Your task to perform on an android device: Turn on the flashlight Image 0: 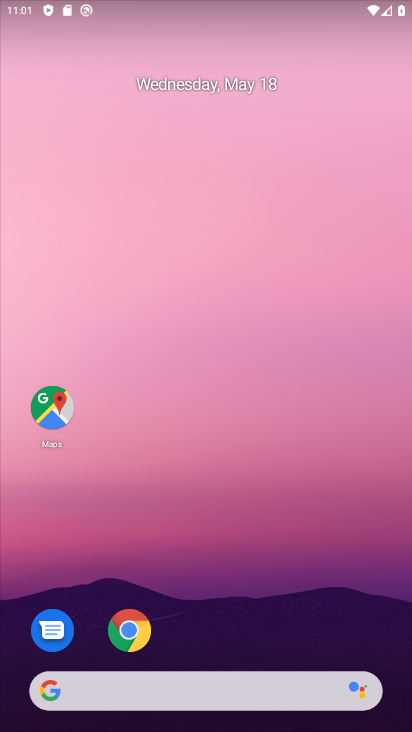
Step 0: click (202, 692)
Your task to perform on an android device: Turn on the flashlight Image 1: 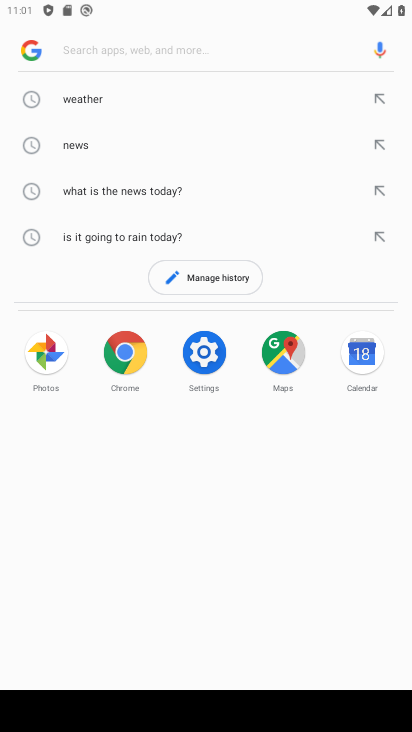
Step 1: press home button
Your task to perform on an android device: Turn on the flashlight Image 2: 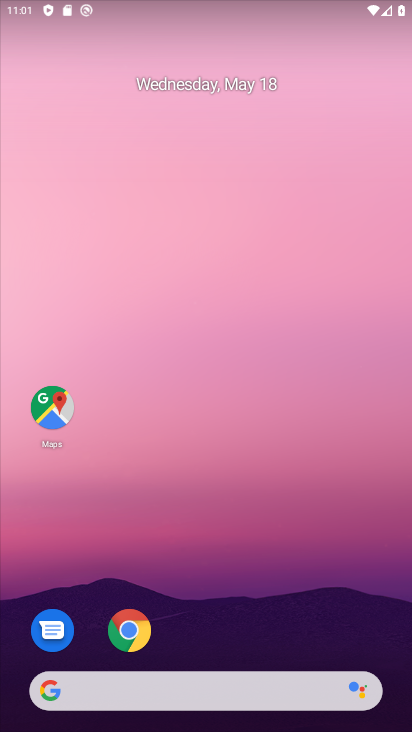
Step 2: drag from (240, 574) to (228, 21)
Your task to perform on an android device: Turn on the flashlight Image 3: 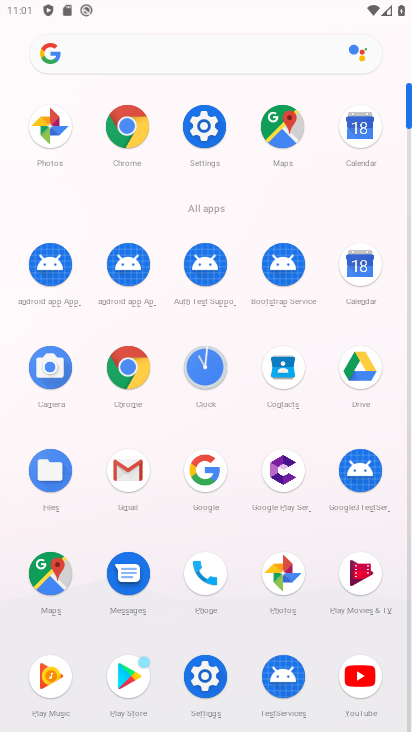
Step 3: click (203, 211)
Your task to perform on an android device: Turn on the flashlight Image 4: 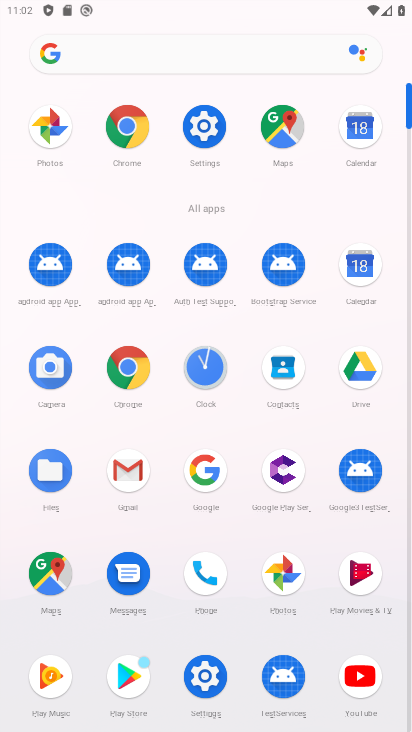
Step 4: click (207, 138)
Your task to perform on an android device: Turn on the flashlight Image 5: 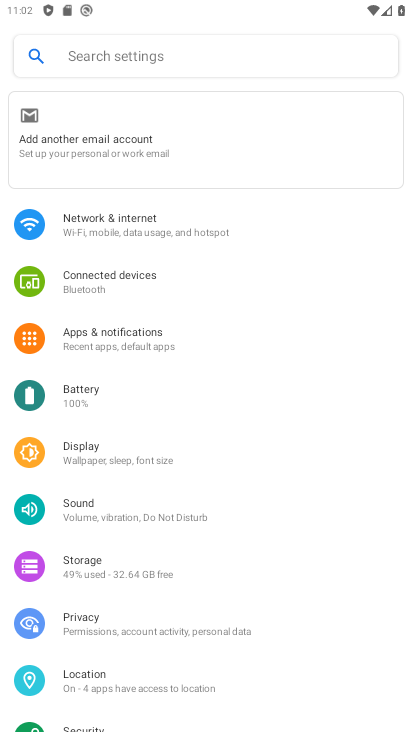
Step 5: click (197, 57)
Your task to perform on an android device: Turn on the flashlight Image 6: 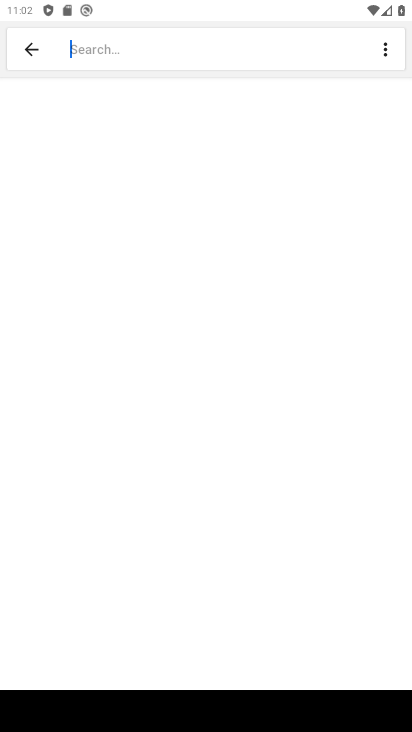
Step 6: type "flashlight"
Your task to perform on an android device: Turn on the flashlight Image 7: 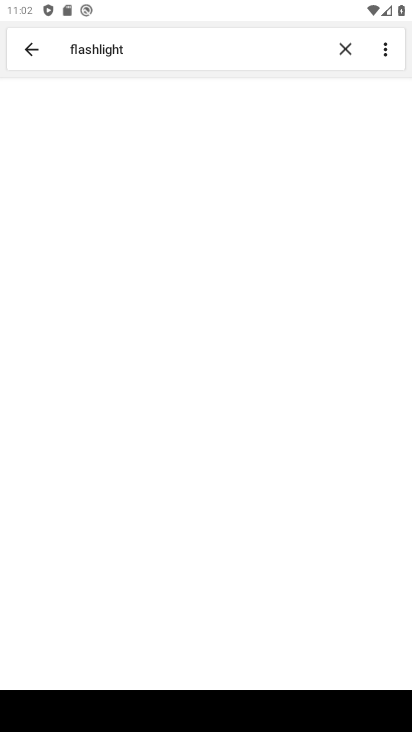
Step 7: click (207, 126)
Your task to perform on an android device: Turn on the flashlight Image 8: 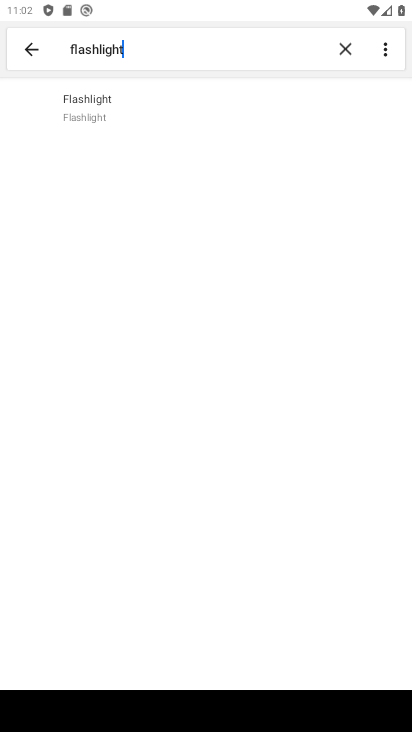
Step 8: click (99, 108)
Your task to perform on an android device: Turn on the flashlight Image 9: 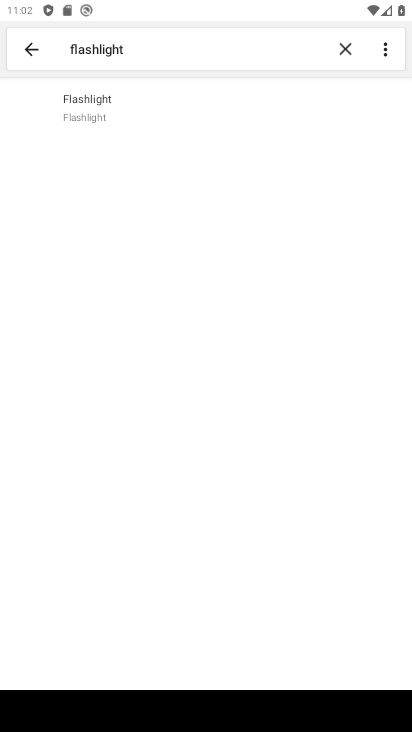
Step 9: click (99, 108)
Your task to perform on an android device: Turn on the flashlight Image 10: 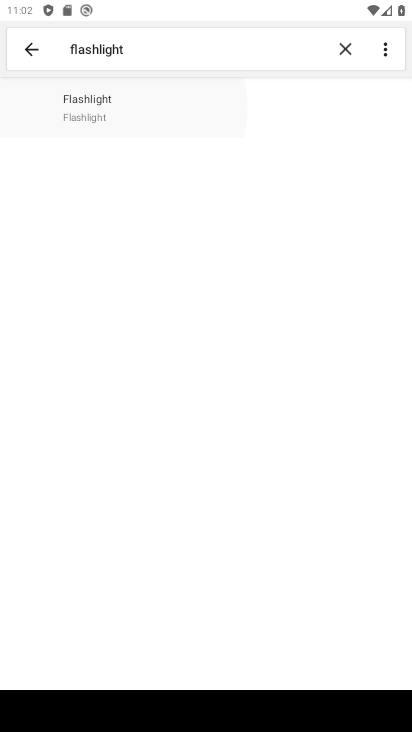
Step 10: click (99, 108)
Your task to perform on an android device: Turn on the flashlight Image 11: 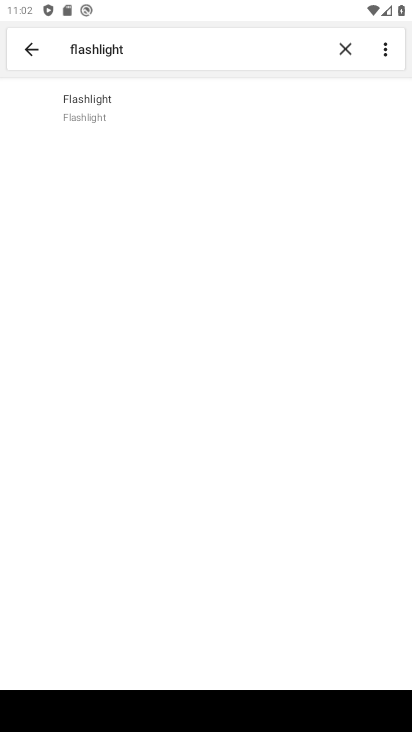
Step 11: task complete